Your task to perform on an android device: check the backup settings in the google photos Image 0: 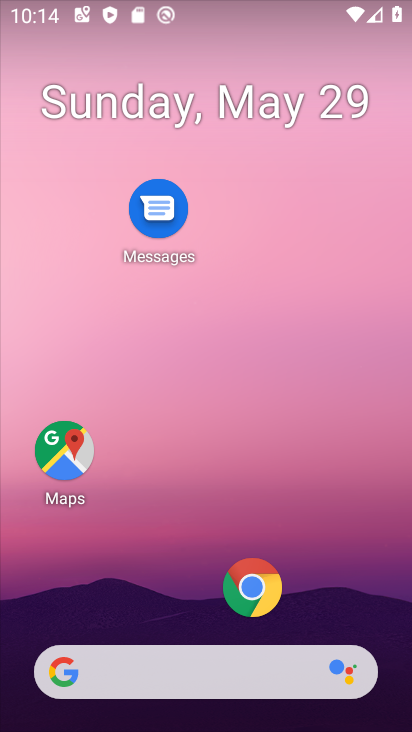
Step 0: drag from (201, 532) to (272, 138)
Your task to perform on an android device: check the backup settings in the google photos Image 1: 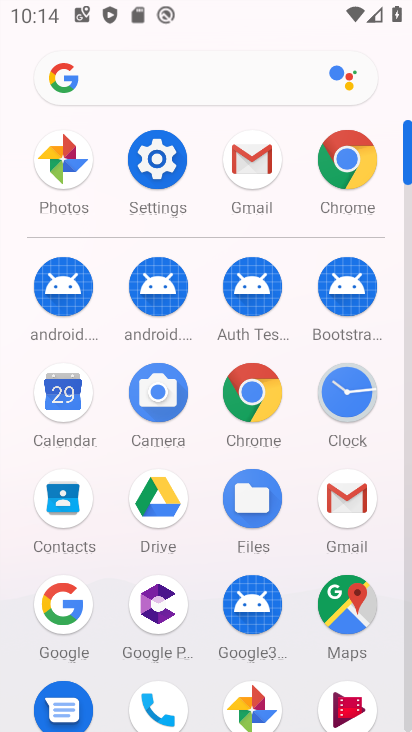
Step 1: click (245, 694)
Your task to perform on an android device: check the backup settings in the google photos Image 2: 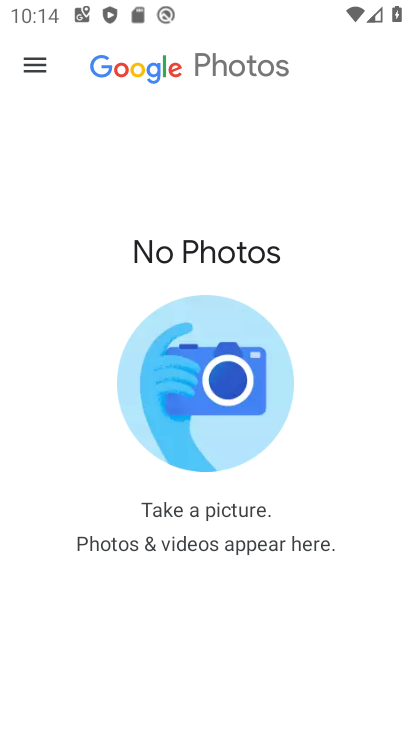
Step 2: click (1, 75)
Your task to perform on an android device: check the backup settings in the google photos Image 3: 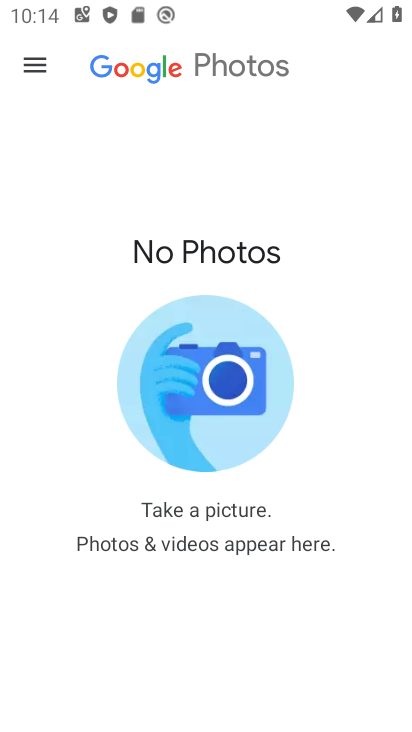
Step 3: click (35, 60)
Your task to perform on an android device: check the backup settings in the google photos Image 4: 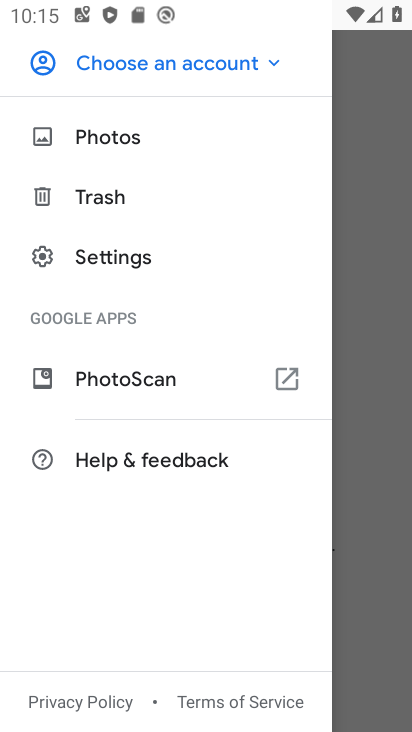
Step 4: click (108, 258)
Your task to perform on an android device: check the backup settings in the google photos Image 5: 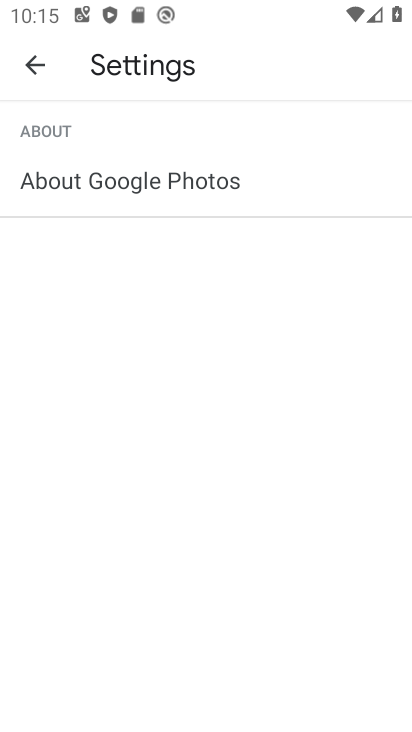
Step 5: task complete